Your task to perform on an android device: Go to display settings Image 0: 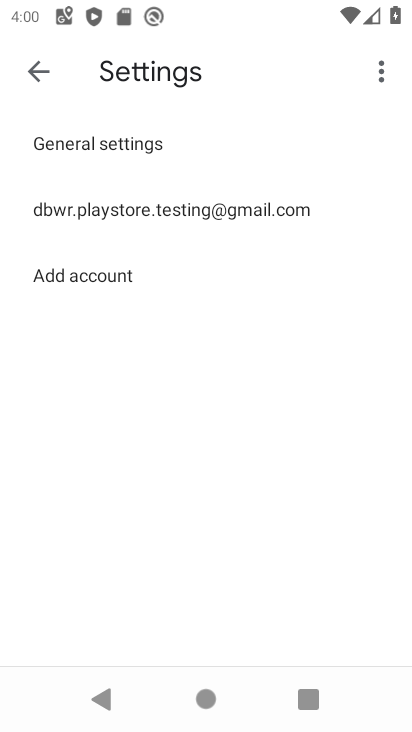
Step 0: click (35, 69)
Your task to perform on an android device: Go to display settings Image 1: 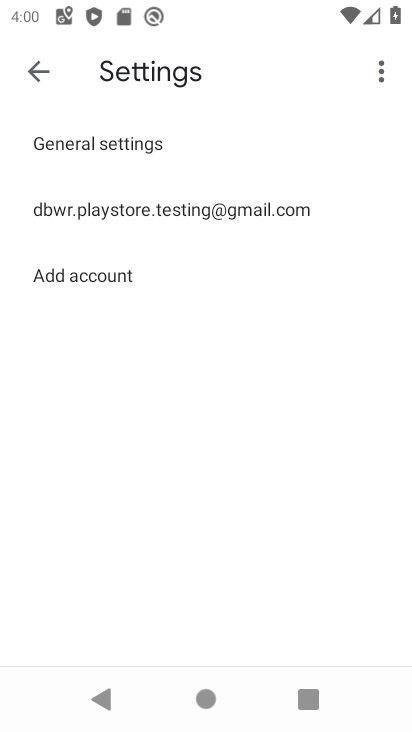
Step 1: press home button
Your task to perform on an android device: Go to display settings Image 2: 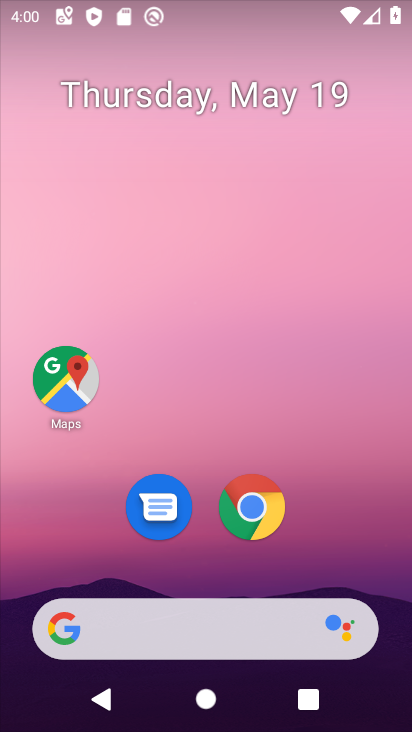
Step 2: drag from (389, 678) to (302, 146)
Your task to perform on an android device: Go to display settings Image 3: 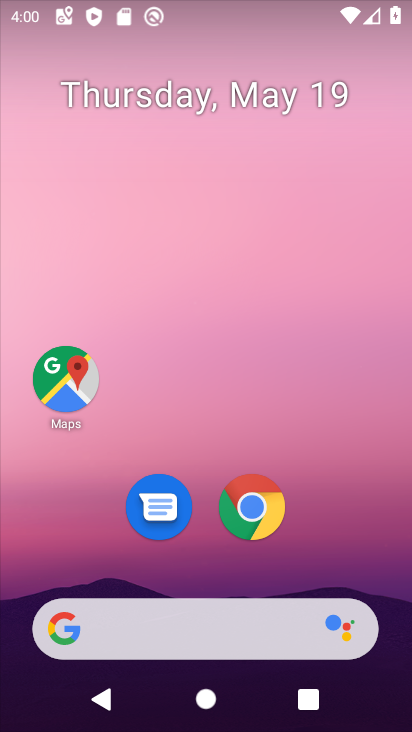
Step 3: drag from (382, 691) to (353, 146)
Your task to perform on an android device: Go to display settings Image 4: 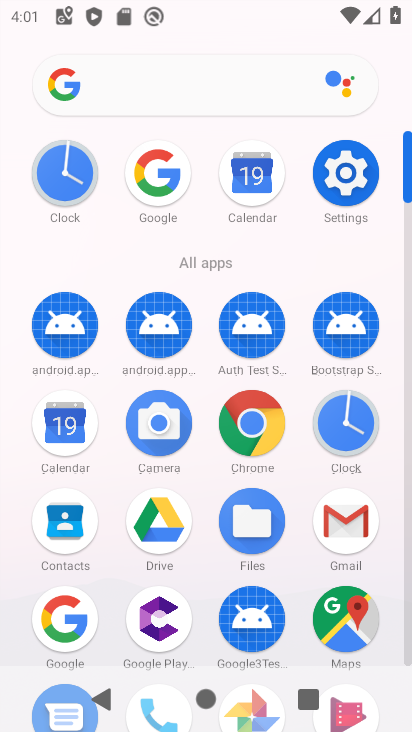
Step 4: click (362, 170)
Your task to perform on an android device: Go to display settings Image 5: 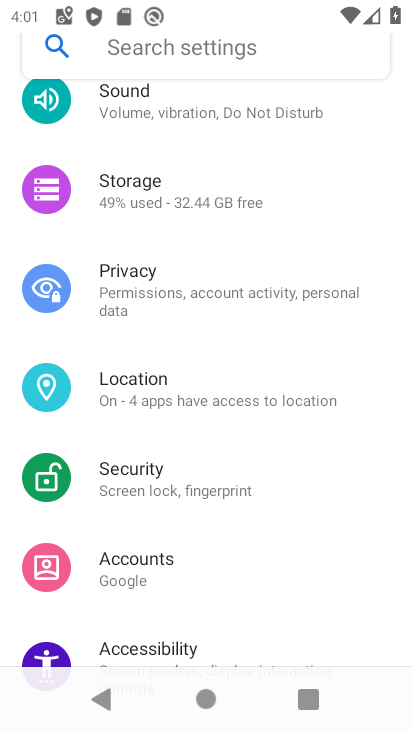
Step 5: drag from (362, 146) to (372, 547)
Your task to perform on an android device: Go to display settings Image 6: 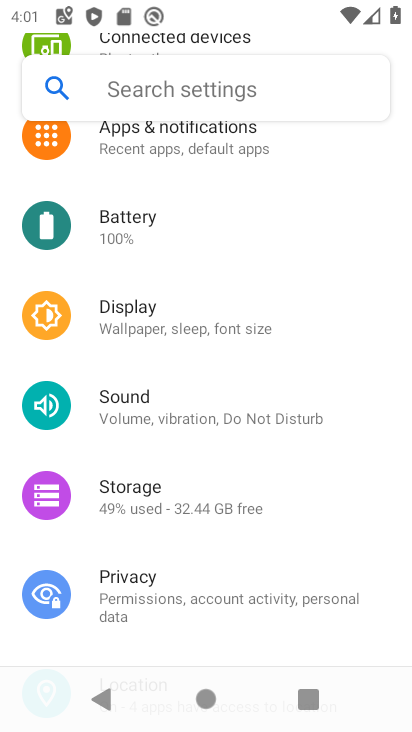
Step 6: click (144, 320)
Your task to perform on an android device: Go to display settings Image 7: 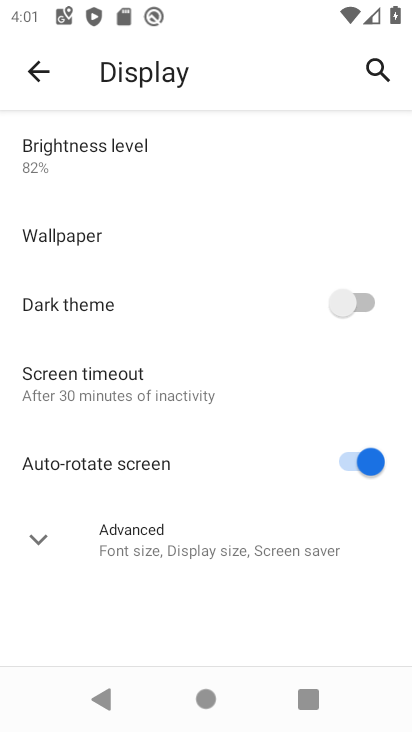
Step 7: task complete